Your task to perform on an android device: allow notifications from all sites in the chrome app Image 0: 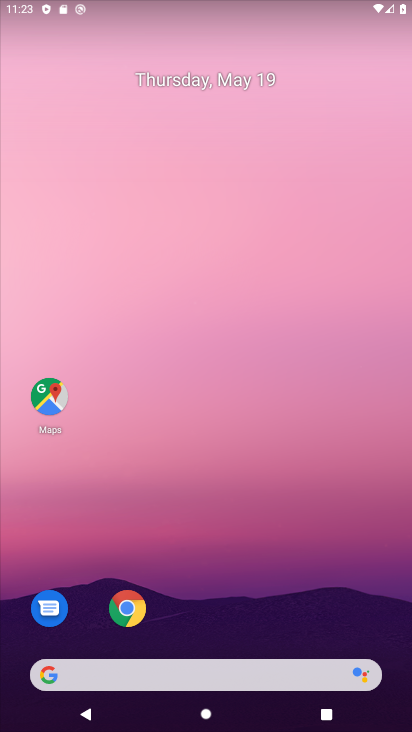
Step 0: drag from (353, 615) to (364, 147)
Your task to perform on an android device: allow notifications from all sites in the chrome app Image 1: 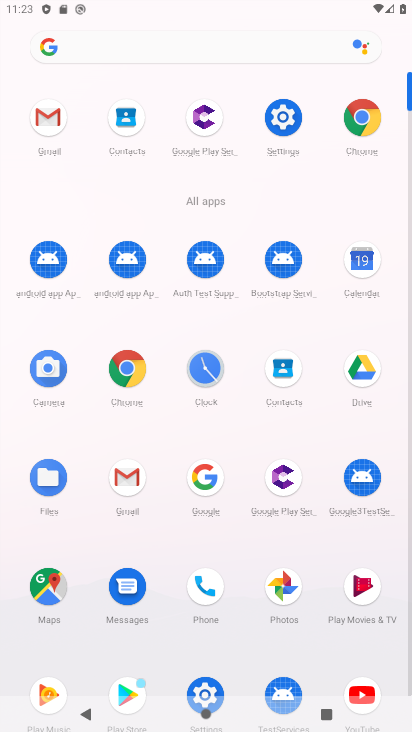
Step 1: click (138, 377)
Your task to perform on an android device: allow notifications from all sites in the chrome app Image 2: 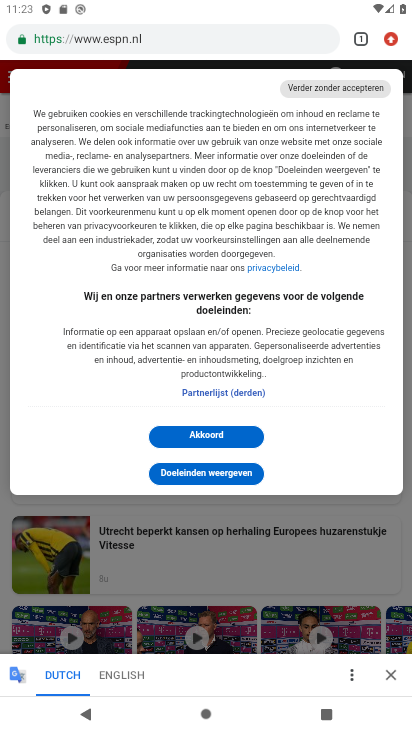
Step 2: click (391, 37)
Your task to perform on an android device: allow notifications from all sites in the chrome app Image 3: 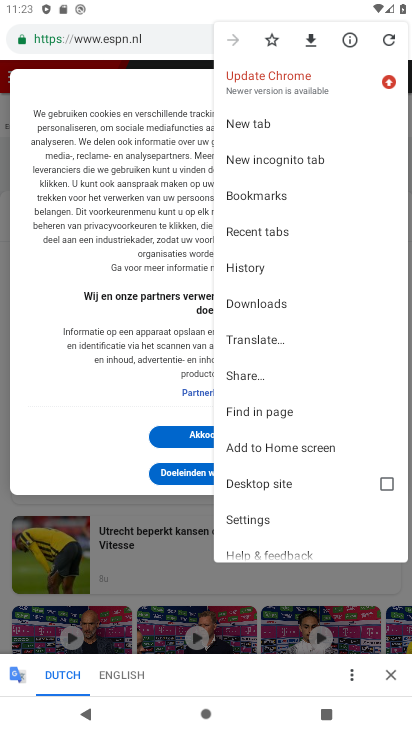
Step 3: click (303, 524)
Your task to perform on an android device: allow notifications from all sites in the chrome app Image 4: 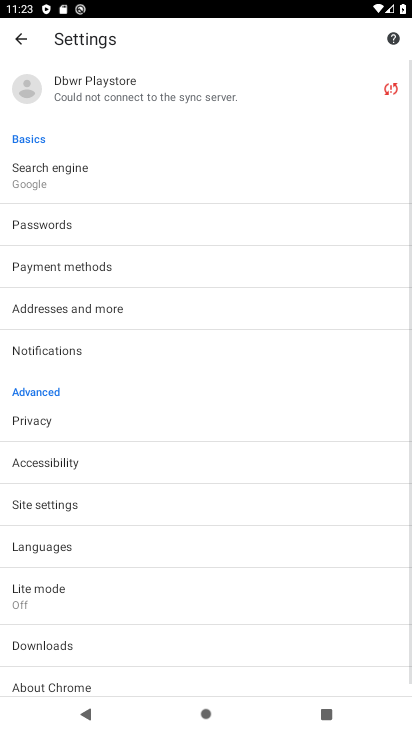
Step 4: drag from (307, 542) to (310, 413)
Your task to perform on an android device: allow notifications from all sites in the chrome app Image 5: 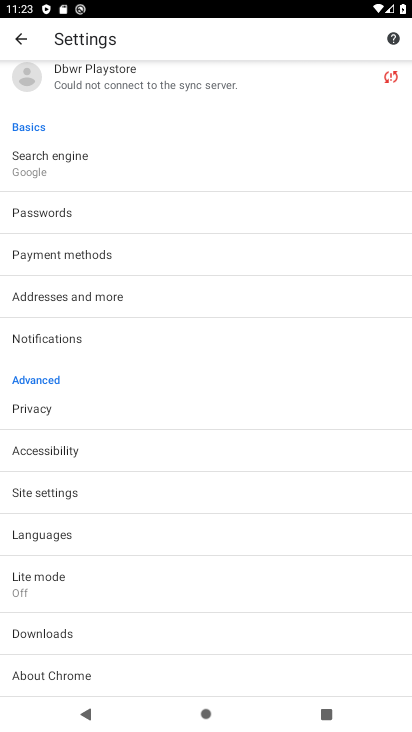
Step 5: click (258, 492)
Your task to perform on an android device: allow notifications from all sites in the chrome app Image 6: 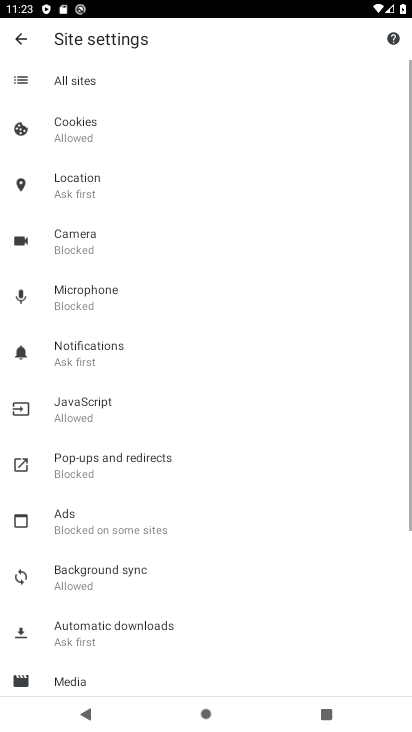
Step 6: drag from (320, 571) to (329, 446)
Your task to perform on an android device: allow notifications from all sites in the chrome app Image 7: 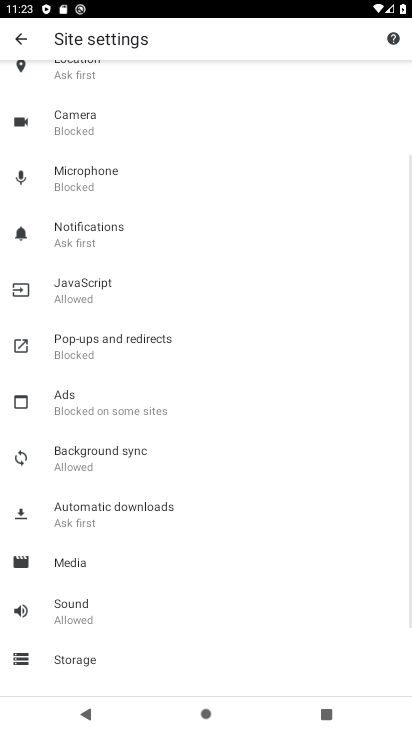
Step 7: drag from (337, 590) to (341, 481)
Your task to perform on an android device: allow notifications from all sites in the chrome app Image 8: 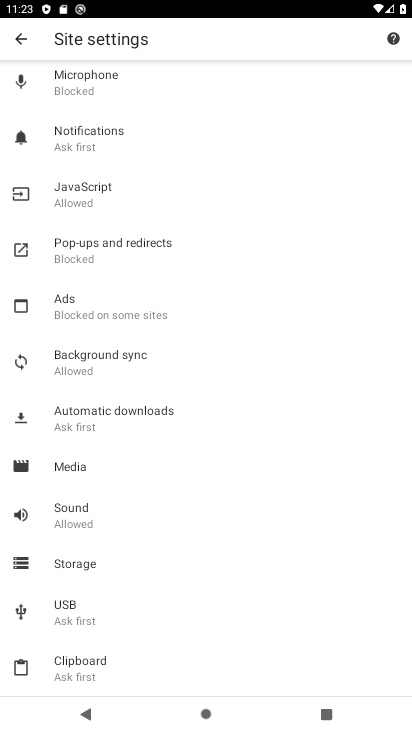
Step 8: drag from (354, 597) to (356, 554)
Your task to perform on an android device: allow notifications from all sites in the chrome app Image 9: 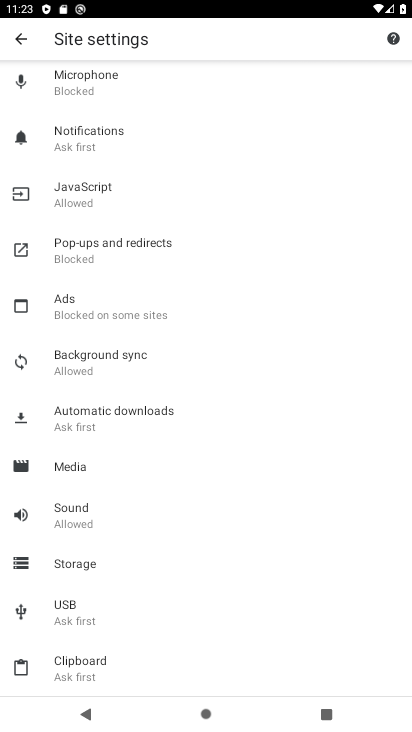
Step 9: drag from (366, 619) to (370, 486)
Your task to perform on an android device: allow notifications from all sites in the chrome app Image 10: 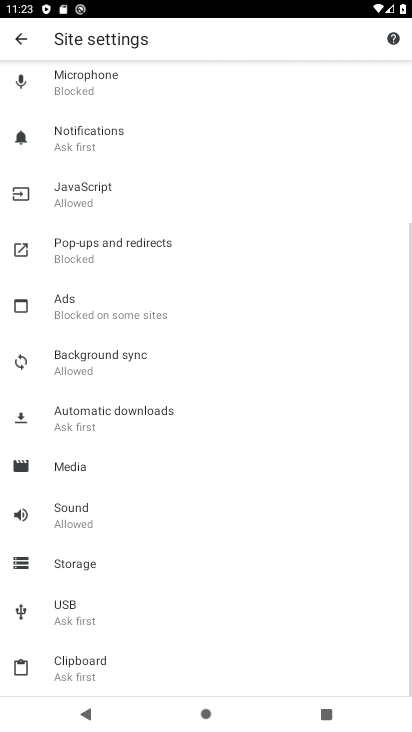
Step 10: drag from (372, 380) to (375, 482)
Your task to perform on an android device: allow notifications from all sites in the chrome app Image 11: 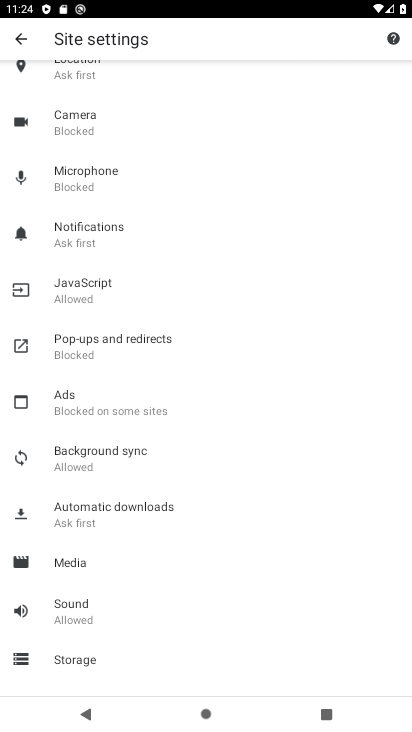
Step 11: drag from (347, 384) to (352, 477)
Your task to perform on an android device: allow notifications from all sites in the chrome app Image 12: 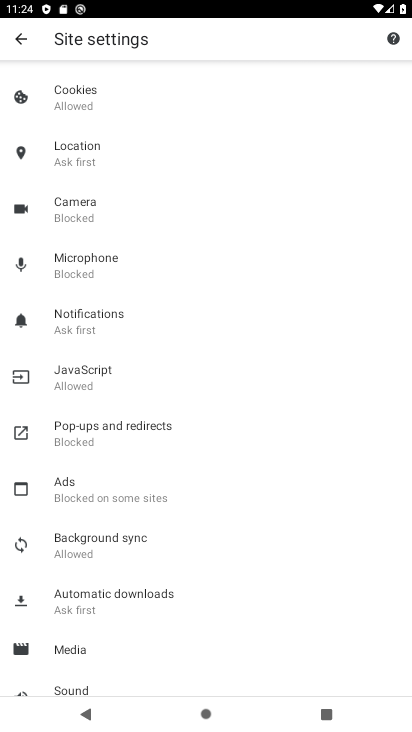
Step 12: click (201, 341)
Your task to perform on an android device: allow notifications from all sites in the chrome app Image 13: 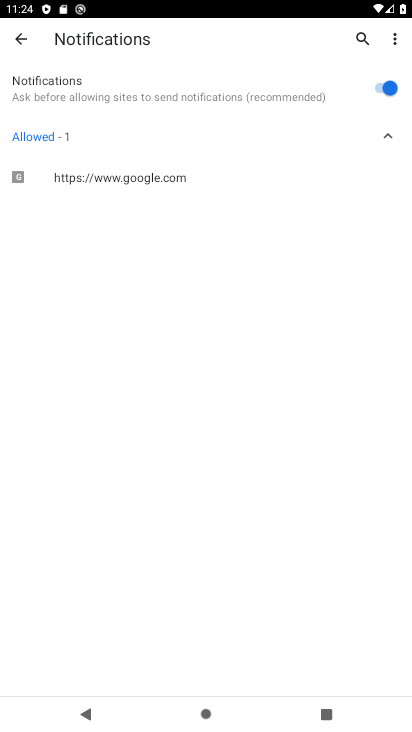
Step 13: task complete